Your task to perform on an android device: toggle data saver in the chrome app Image 0: 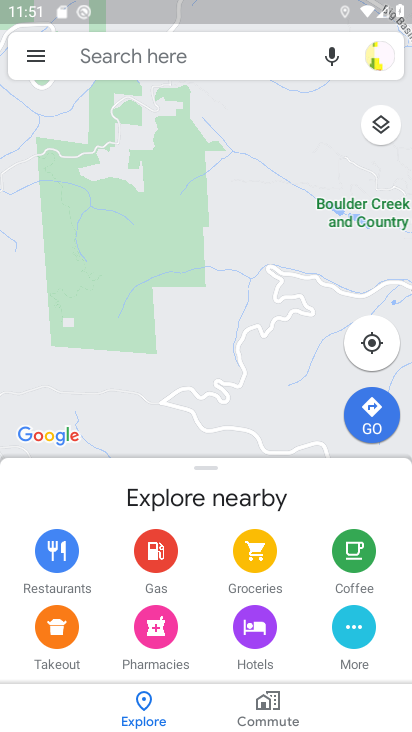
Step 0: drag from (164, 602) to (261, 257)
Your task to perform on an android device: toggle data saver in the chrome app Image 1: 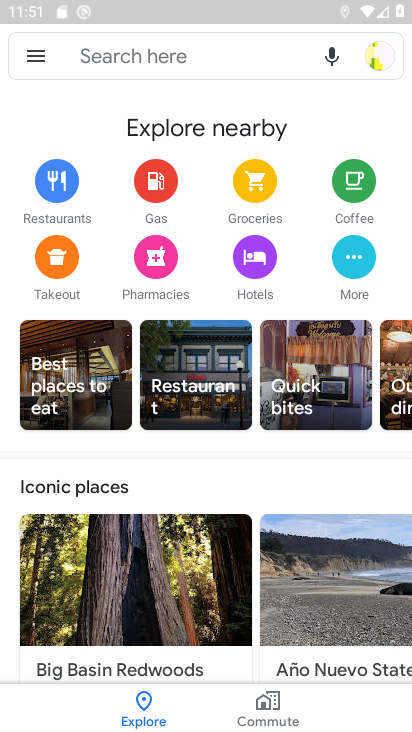
Step 1: drag from (279, 480) to (341, 224)
Your task to perform on an android device: toggle data saver in the chrome app Image 2: 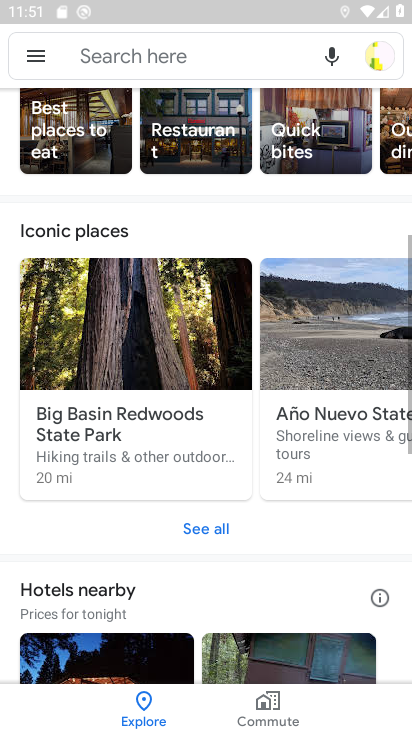
Step 2: drag from (279, 250) to (193, 709)
Your task to perform on an android device: toggle data saver in the chrome app Image 3: 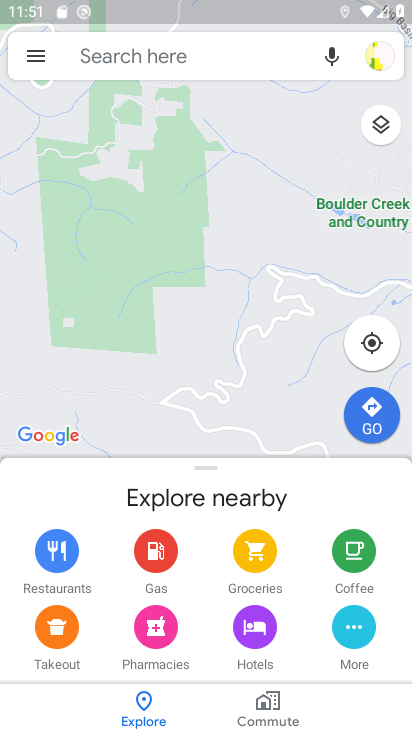
Step 3: press home button
Your task to perform on an android device: toggle data saver in the chrome app Image 4: 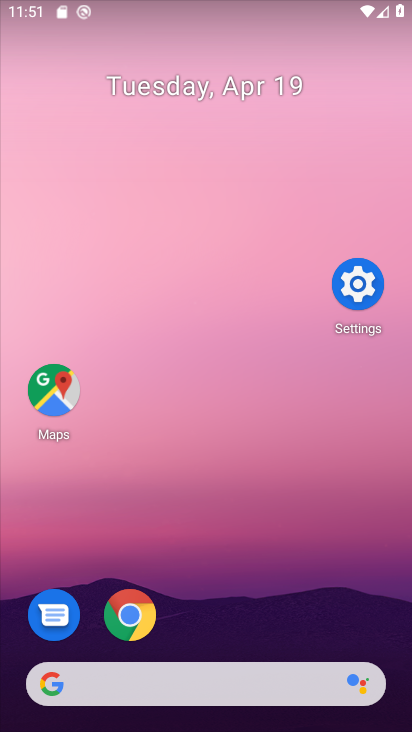
Step 4: click (150, 616)
Your task to perform on an android device: toggle data saver in the chrome app Image 5: 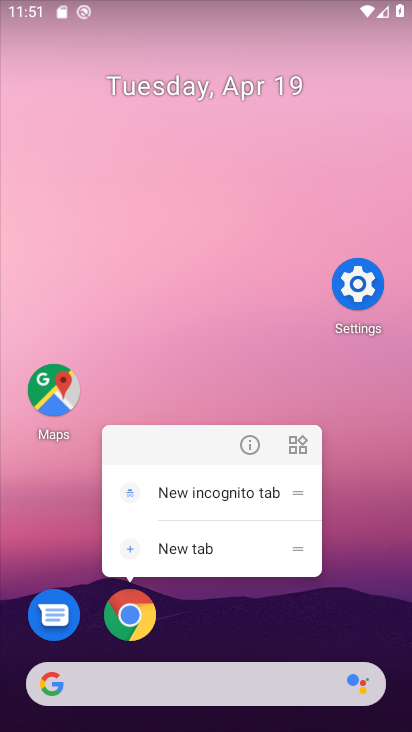
Step 5: click (257, 441)
Your task to perform on an android device: toggle data saver in the chrome app Image 6: 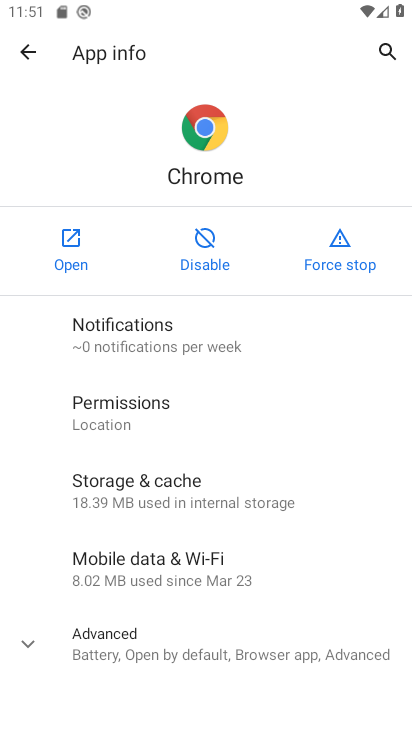
Step 6: click (69, 253)
Your task to perform on an android device: toggle data saver in the chrome app Image 7: 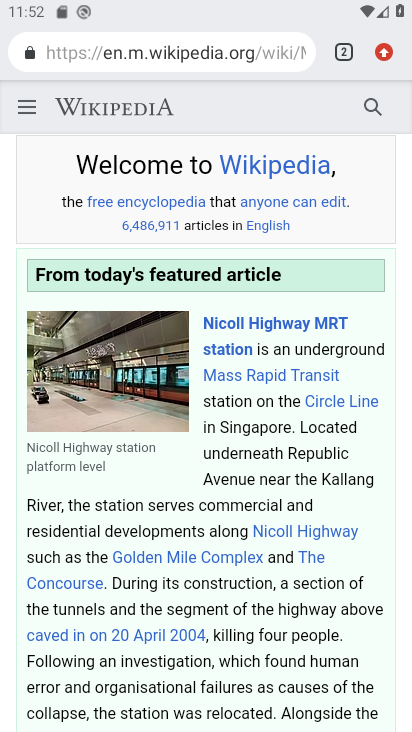
Step 7: drag from (215, 582) to (317, 243)
Your task to perform on an android device: toggle data saver in the chrome app Image 8: 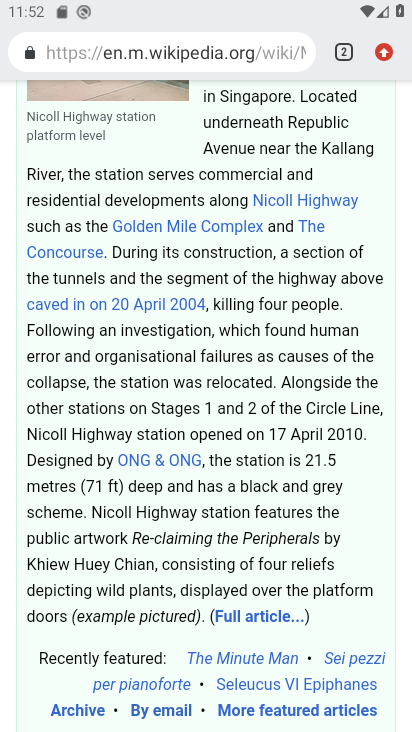
Step 8: drag from (254, 553) to (349, 191)
Your task to perform on an android device: toggle data saver in the chrome app Image 9: 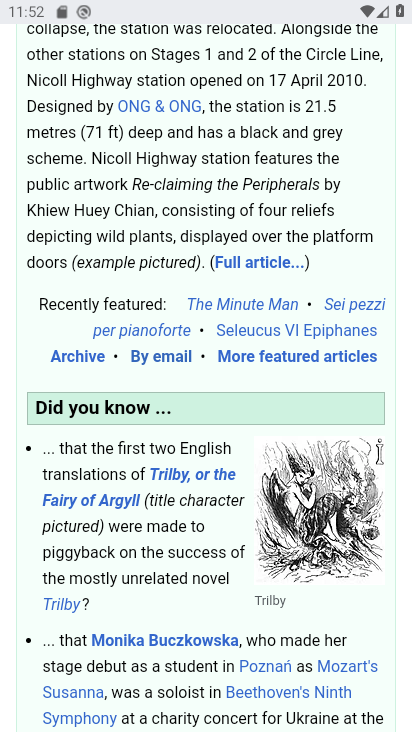
Step 9: drag from (248, 478) to (303, 214)
Your task to perform on an android device: toggle data saver in the chrome app Image 10: 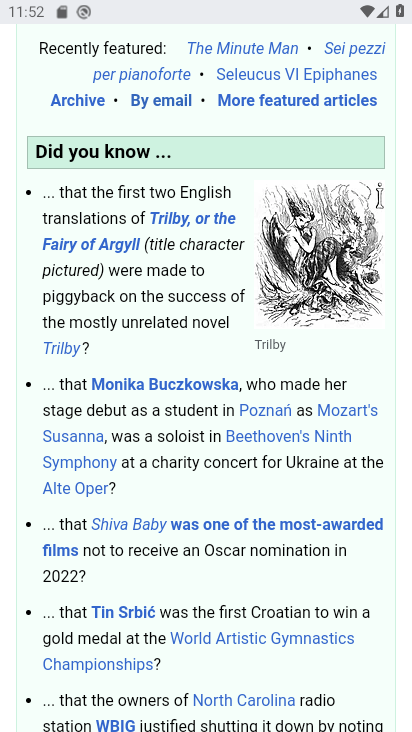
Step 10: drag from (281, 185) to (291, 669)
Your task to perform on an android device: toggle data saver in the chrome app Image 11: 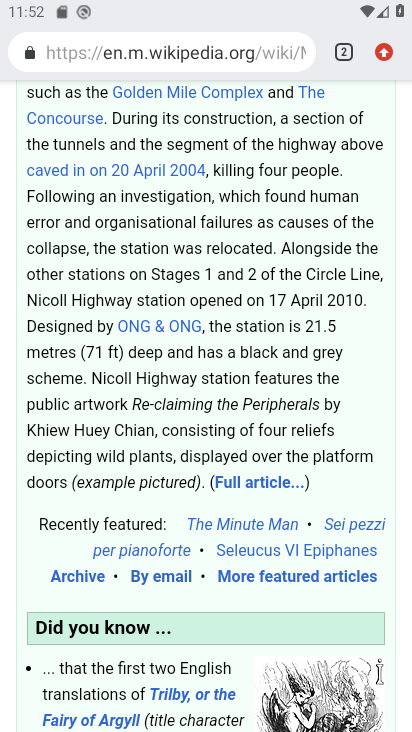
Step 11: drag from (388, 57) to (215, 662)
Your task to perform on an android device: toggle data saver in the chrome app Image 12: 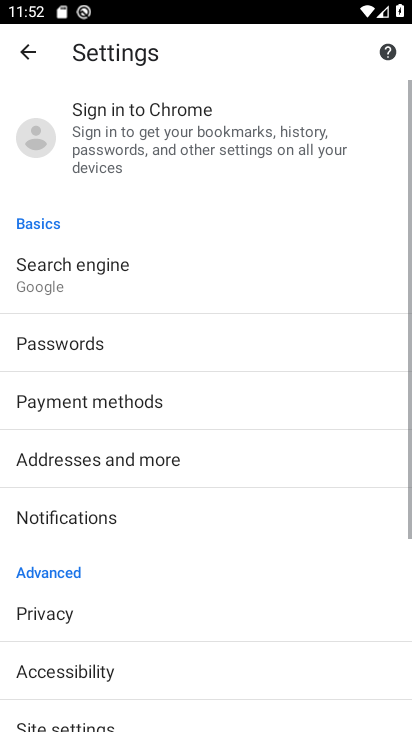
Step 12: drag from (174, 616) to (374, 109)
Your task to perform on an android device: toggle data saver in the chrome app Image 13: 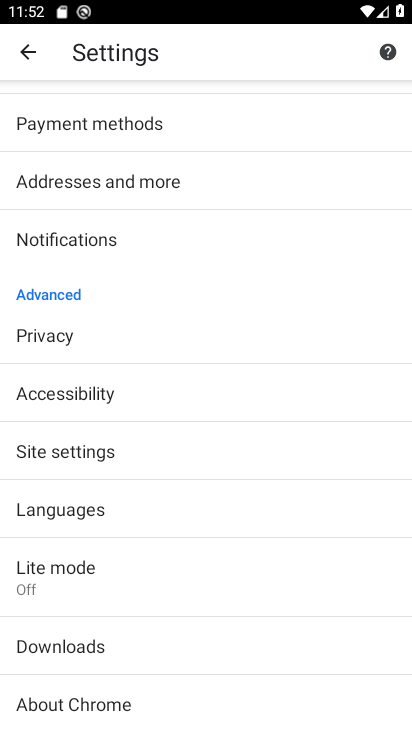
Step 13: click (71, 565)
Your task to perform on an android device: toggle data saver in the chrome app Image 14: 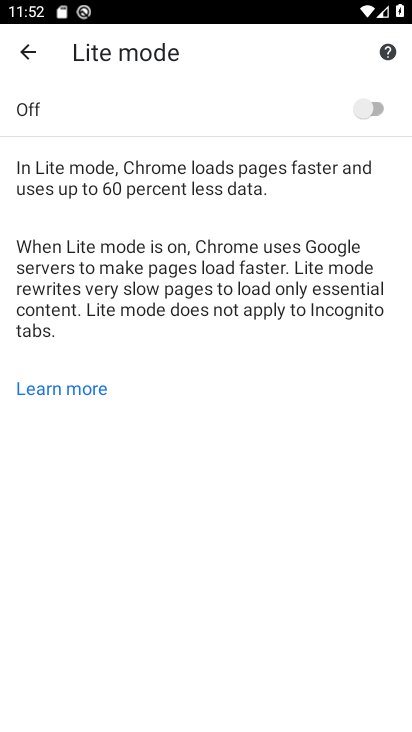
Step 14: click (350, 117)
Your task to perform on an android device: toggle data saver in the chrome app Image 15: 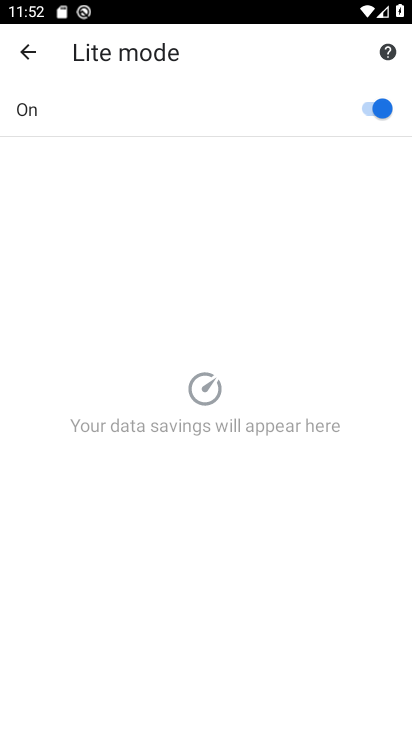
Step 15: task complete